Your task to perform on an android device: check storage Image 0: 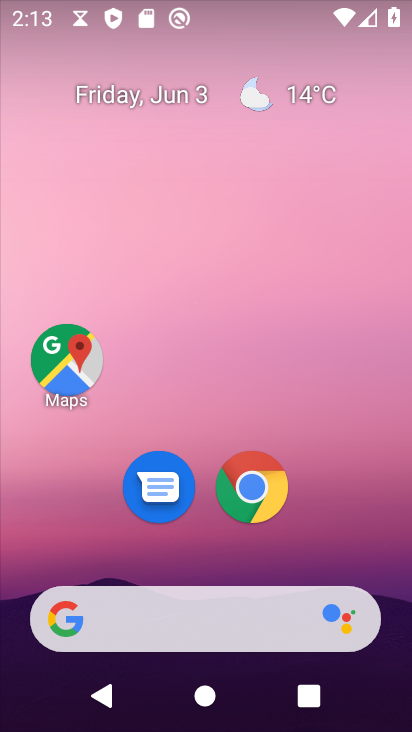
Step 0: drag from (362, 533) to (217, 35)
Your task to perform on an android device: check storage Image 1: 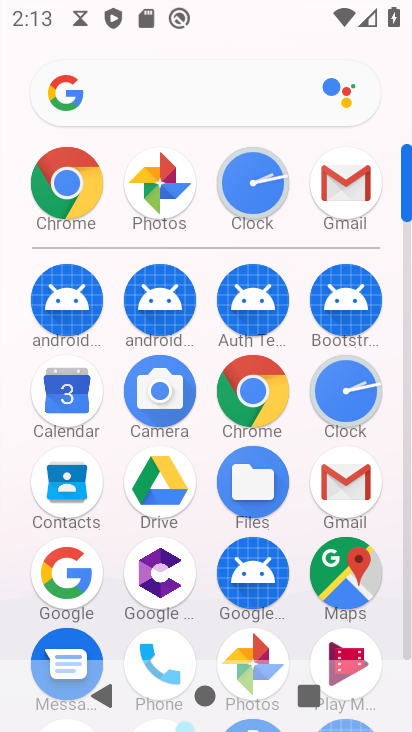
Step 1: drag from (203, 577) to (188, 52)
Your task to perform on an android device: check storage Image 2: 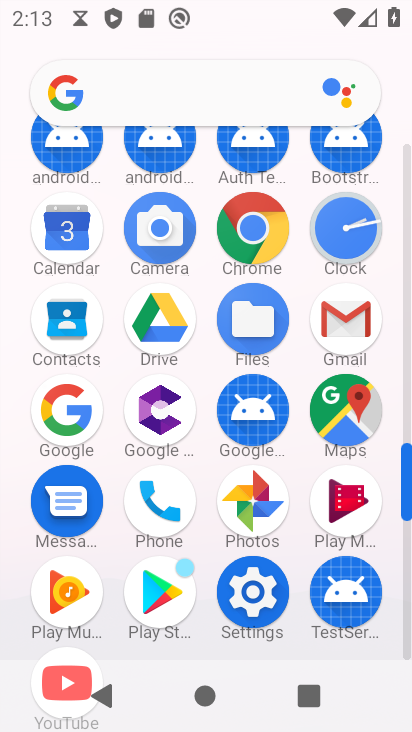
Step 2: click (260, 616)
Your task to perform on an android device: check storage Image 3: 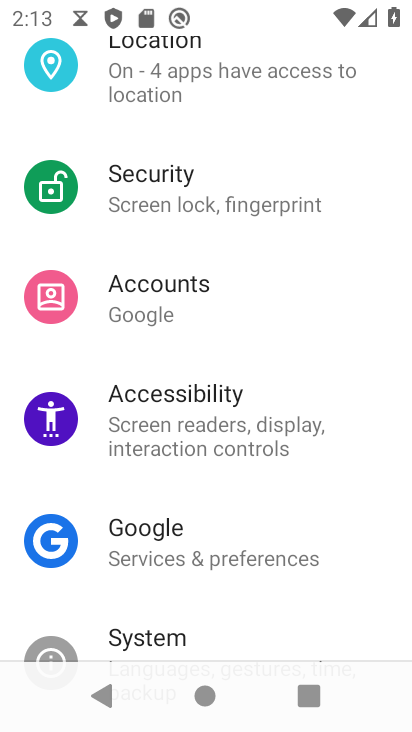
Step 3: drag from (227, 463) to (247, 588)
Your task to perform on an android device: check storage Image 4: 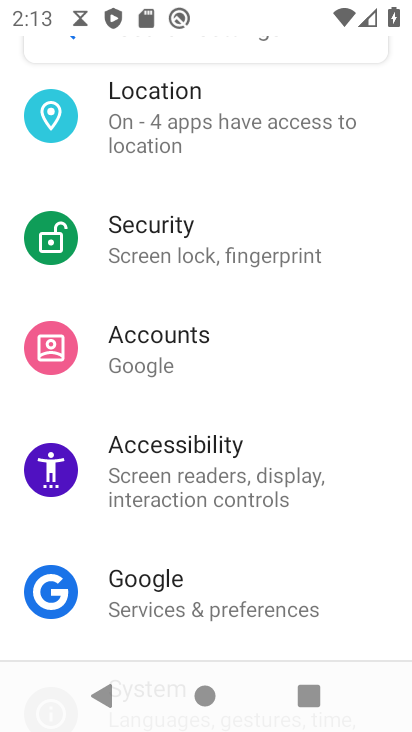
Step 4: drag from (234, 163) to (255, 630)
Your task to perform on an android device: check storage Image 5: 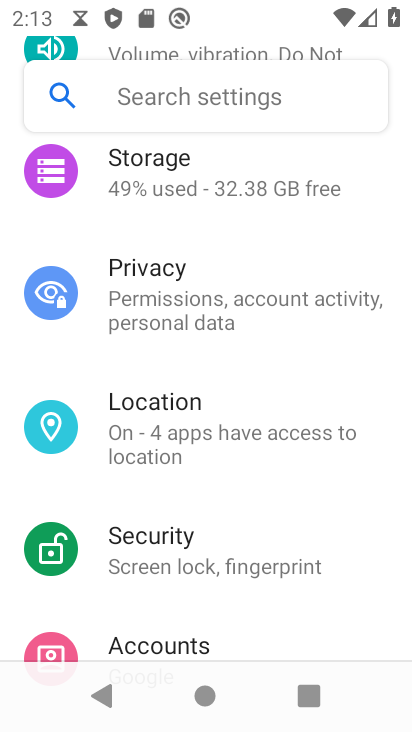
Step 5: click (213, 180)
Your task to perform on an android device: check storage Image 6: 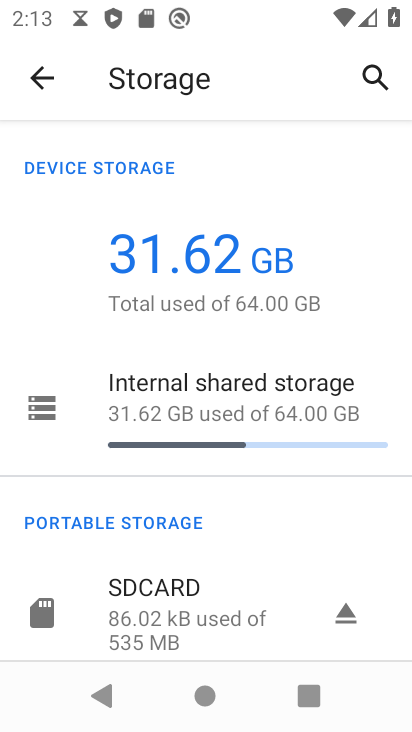
Step 6: task complete